Your task to perform on an android device: Go to calendar. Show me events next week Image 0: 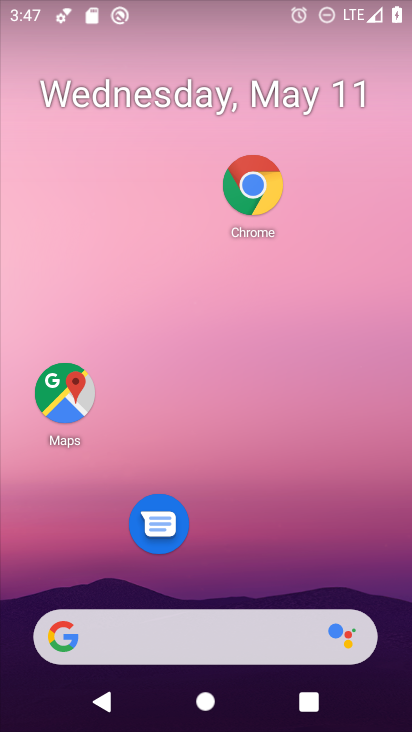
Step 0: drag from (305, 509) to (322, 26)
Your task to perform on an android device: Go to calendar. Show me events next week Image 1: 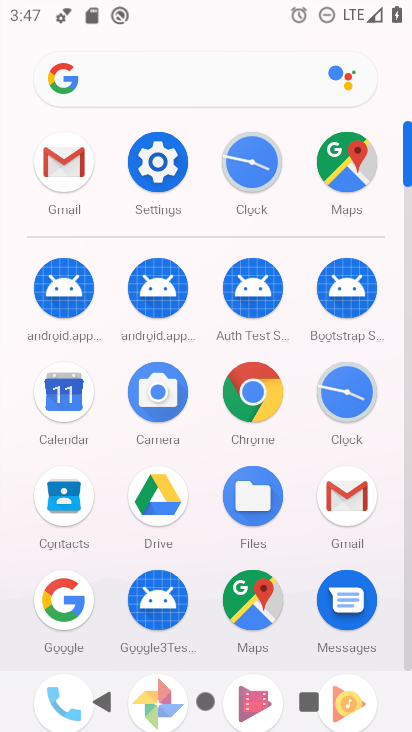
Step 1: click (56, 391)
Your task to perform on an android device: Go to calendar. Show me events next week Image 2: 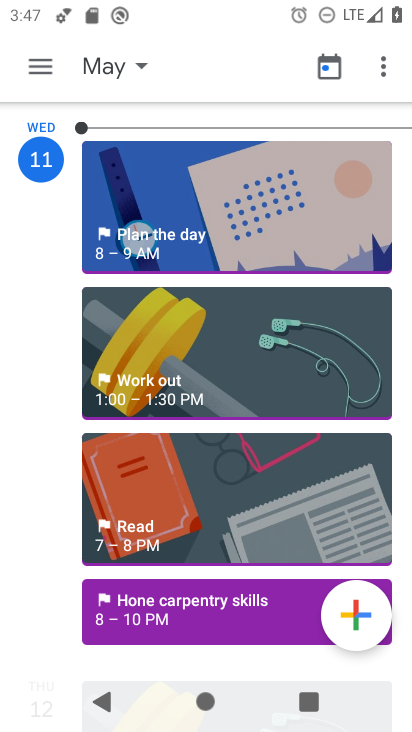
Step 2: click (37, 67)
Your task to perform on an android device: Go to calendar. Show me events next week Image 3: 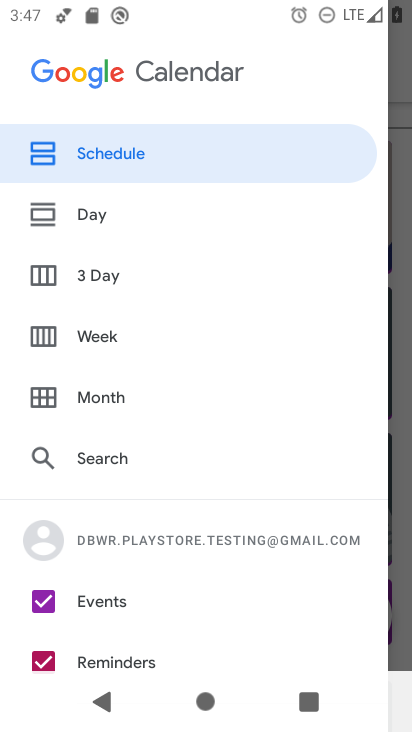
Step 3: click (53, 334)
Your task to perform on an android device: Go to calendar. Show me events next week Image 4: 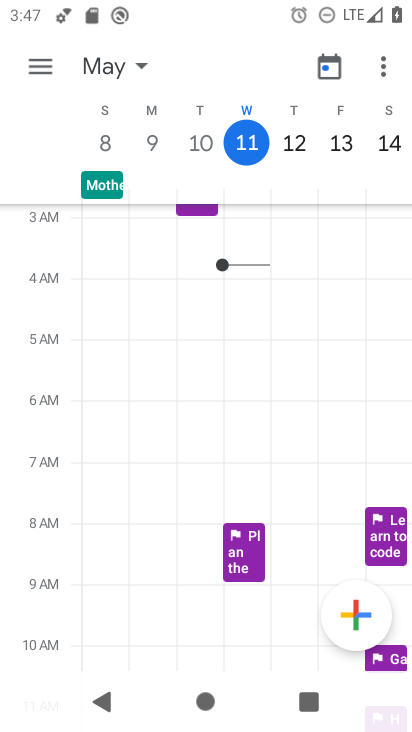
Step 4: task complete